Your task to perform on an android device: Check the settings for the Twitter app Image 0: 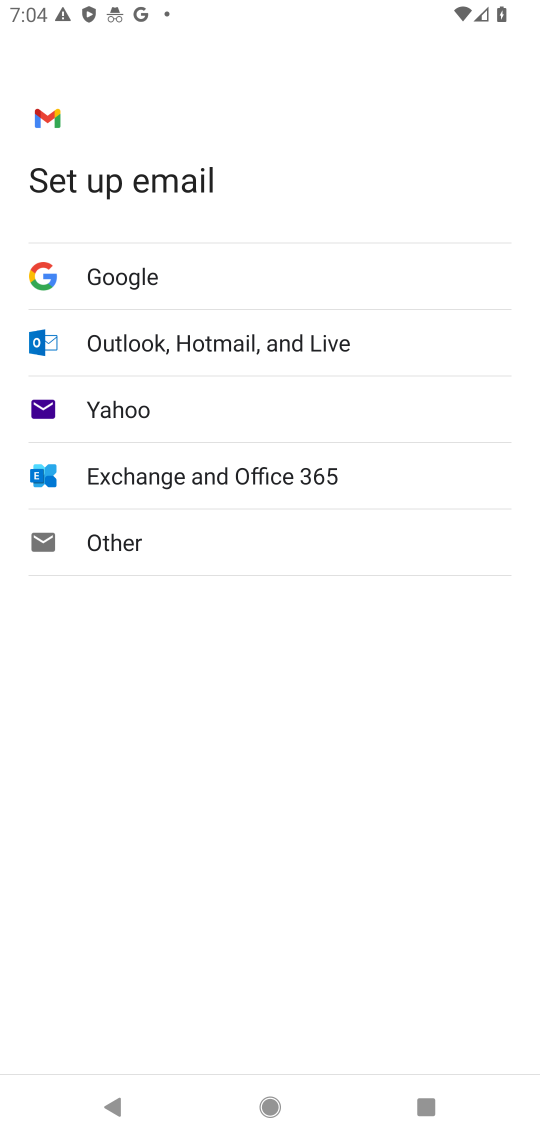
Step 0: press home button
Your task to perform on an android device: Check the settings for the Twitter app Image 1: 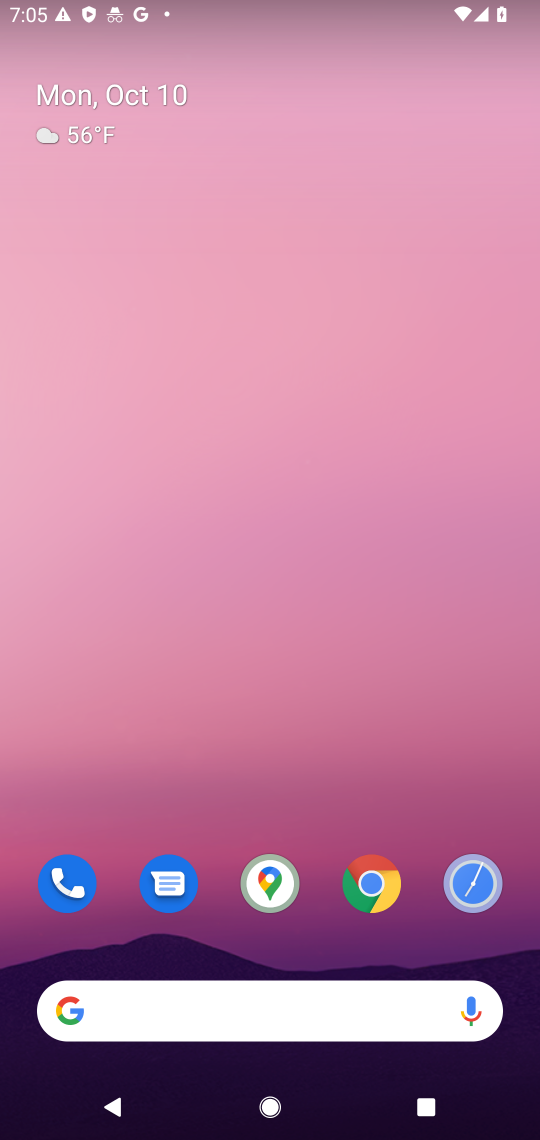
Step 1: drag from (210, 884) to (210, 248)
Your task to perform on an android device: Check the settings for the Twitter app Image 2: 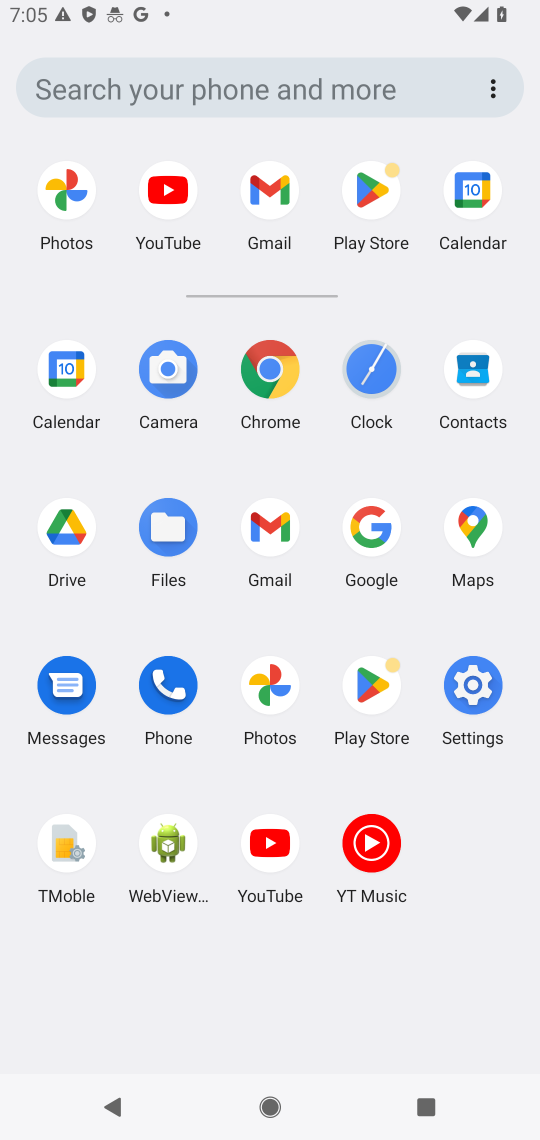
Step 2: click (301, 781)
Your task to perform on an android device: Check the settings for the Twitter app Image 3: 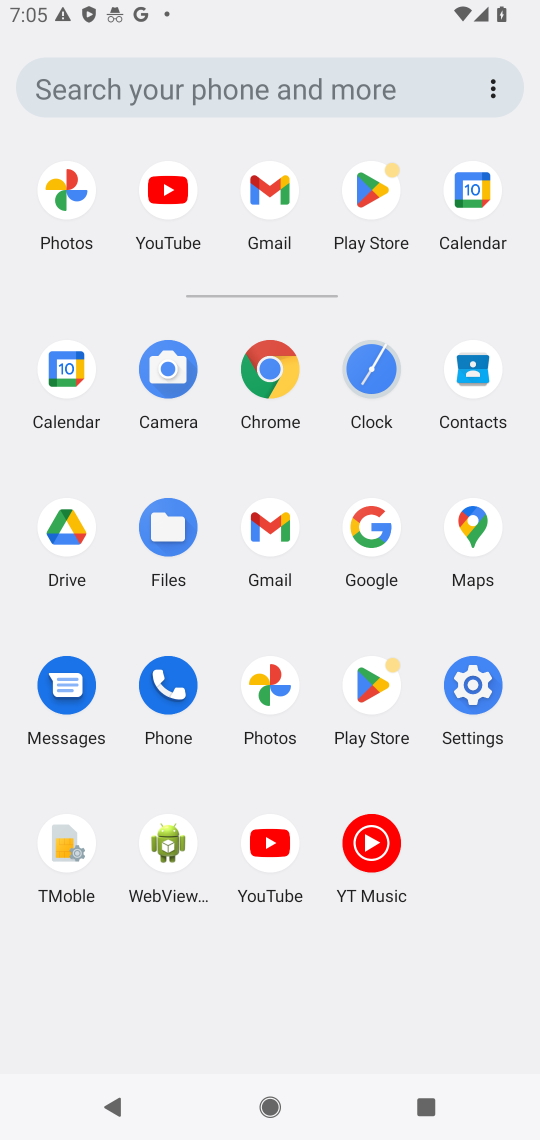
Step 3: task complete